Your task to perform on an android device: Open the web browser Image 0: 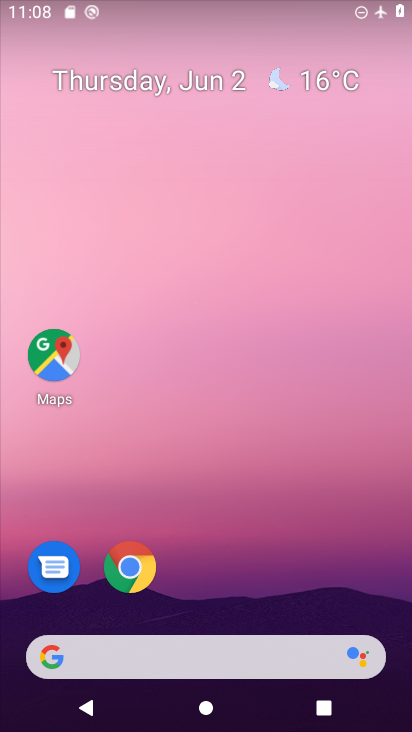
Step 0: click (134, 572)
Your task to perform on an android device: Open the web browser Image 1: 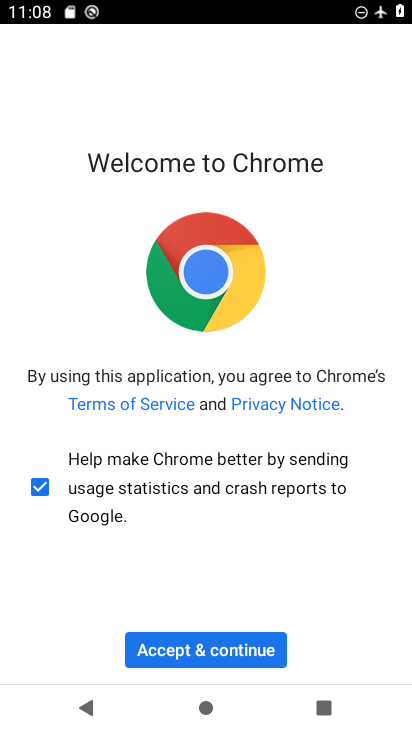
Step 1: click (212, 658)
Your task to perform on an android device: Open the web browser Image 2: 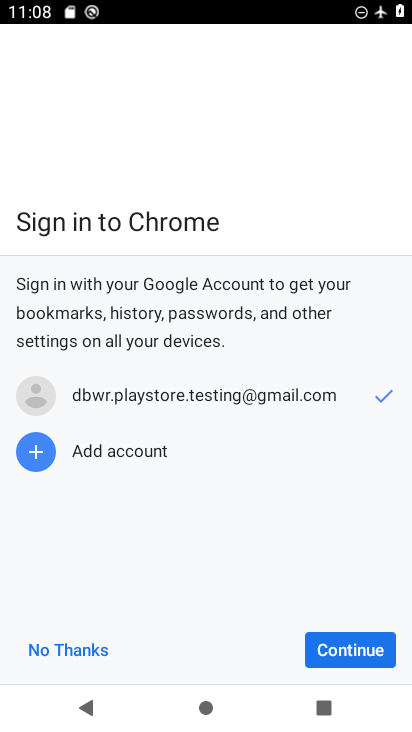
Step 2: click (324, 656)
Your task to perform on an android device: Open the web browser Image 3: 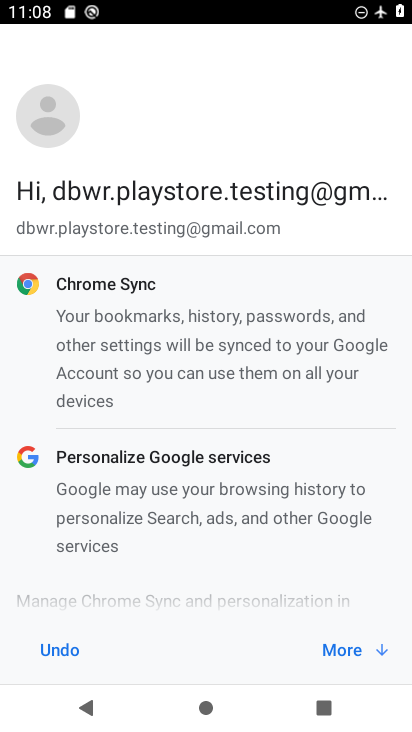
Step 3: click (324, 655)
Your task to perform on an android device: Open the web browser Image 4: 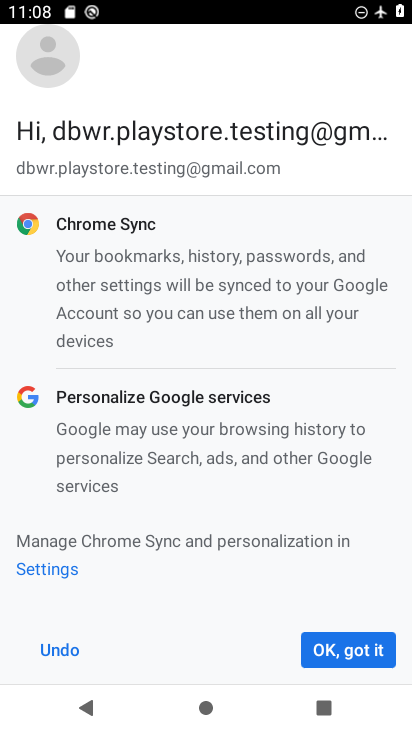
Step 4: click (324, 654)
Your task to perform on an android device: Open the web browser Image 5: 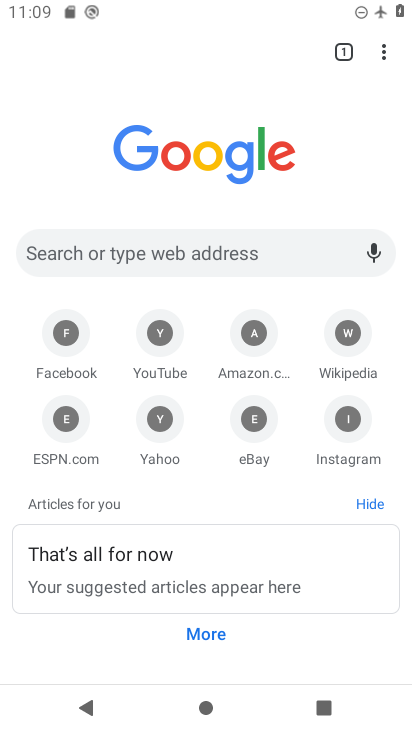
Step 5: task complete